Your task to perform on an android device: open app "VLC for Android" Image 0: 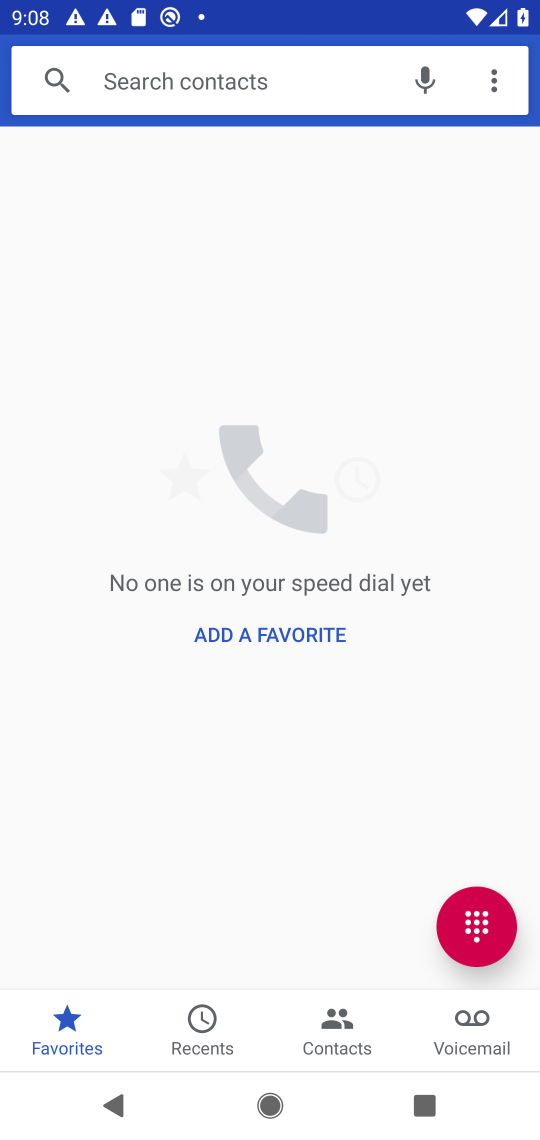
Step 0: press home button
Your task to perform on an android device: open app "VLC for Android" Image 1: 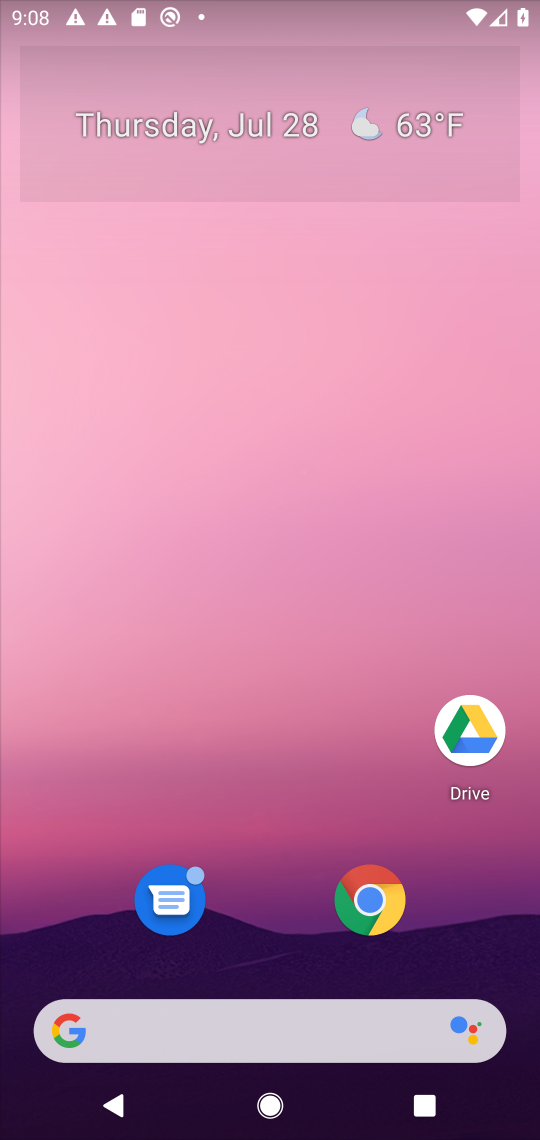
Step 1: task complete